Your task to perform on an android device: Open maps Image 0: 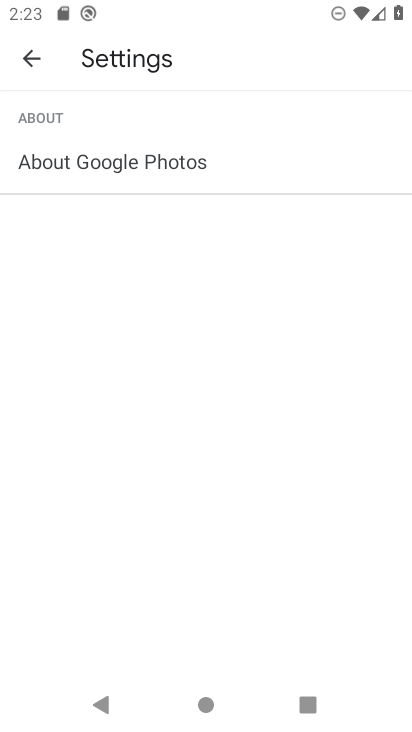
Step 0: press home button
Your task to perform on an android device: Open maps Image 1: 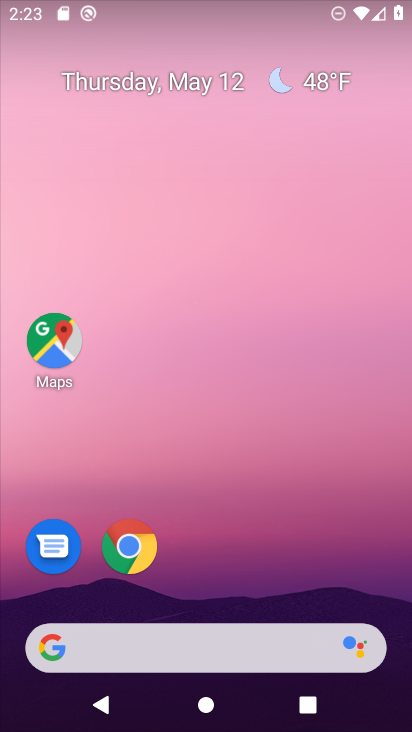
Step 1: drag from (263, 693) to (203, 215)
Your task to perform on an android device: Open maps Image 2: 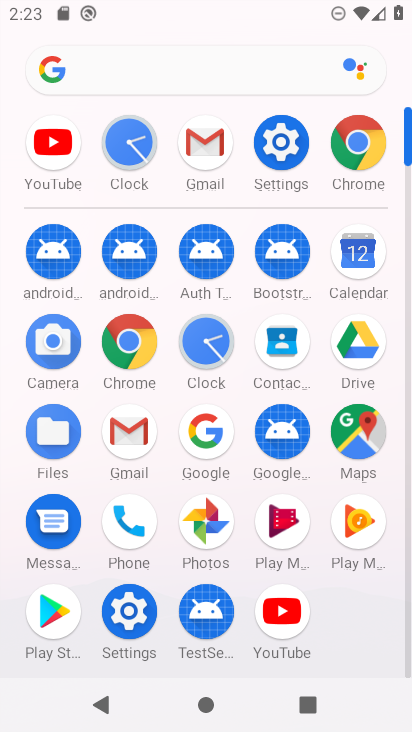
Step 2: click (356, 417)
Your task to perform on an android device: Open maps Image 3: 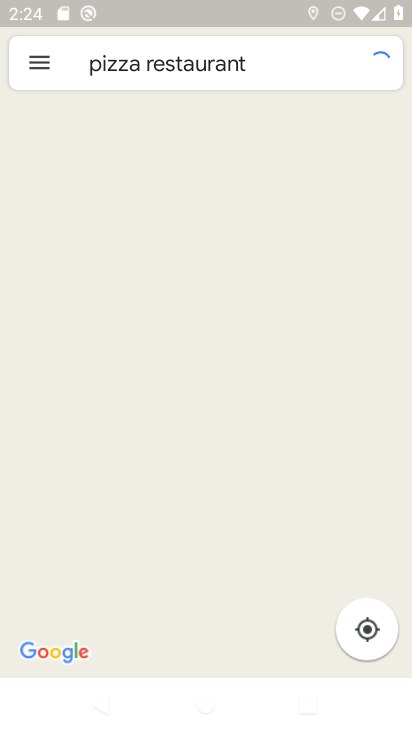
Step 3: click (256, 68)
Your task to perform on an android device: Open maps Image 4: 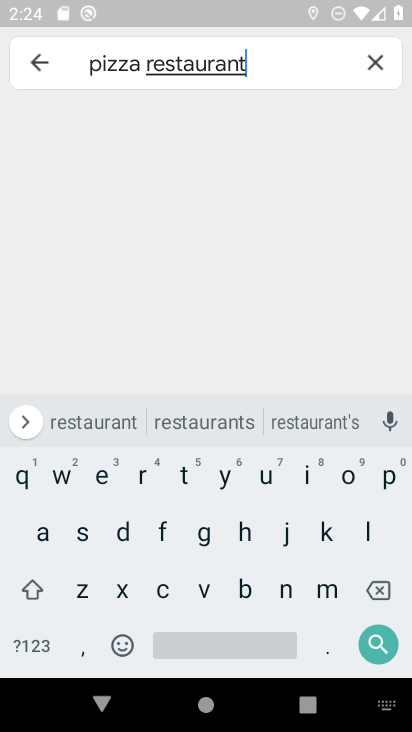
Step 4: click (376, 67)
Your task to perform on an android device: Open maps Image 5: 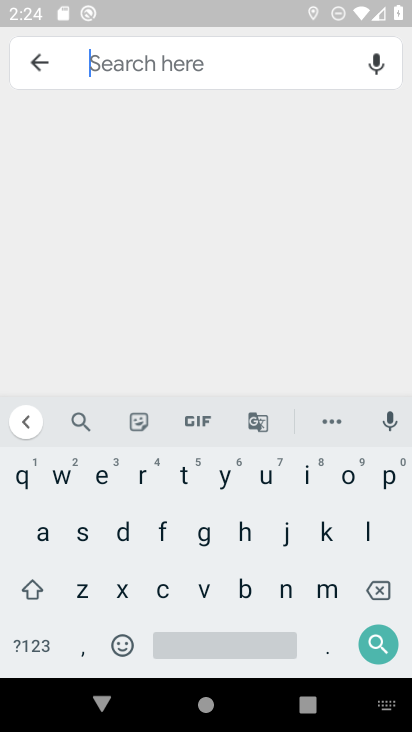
Step 5: click (39, 66)
Your task to perform on an android device: Open maps Image 6: 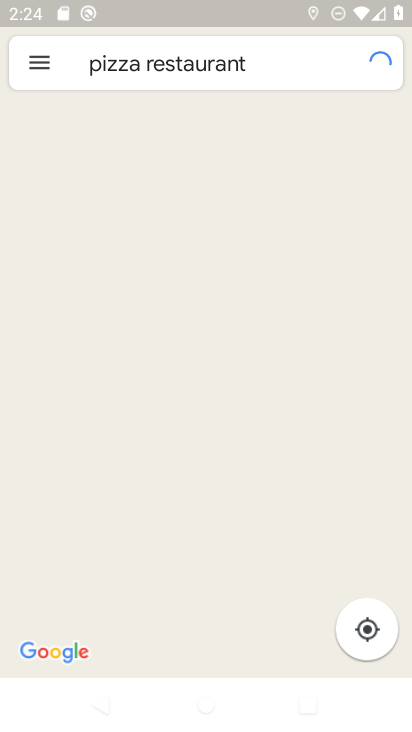
Step 6: click (29, 71)
Your task to perform on an android device: Open maps Image 7: 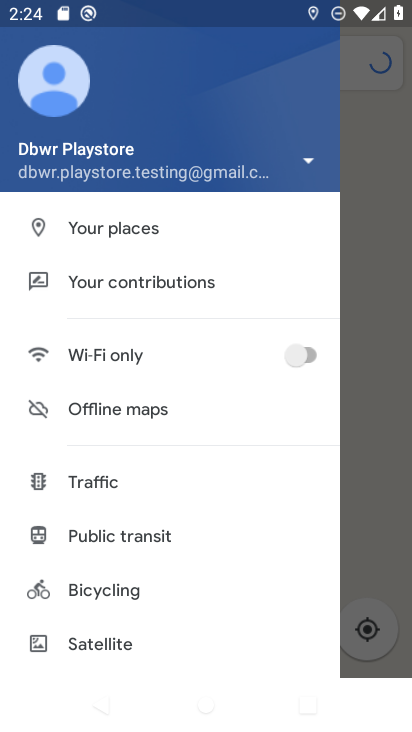
Step 7: click (366, 337)
Your task to perform on an android device: Open maps Image 8: 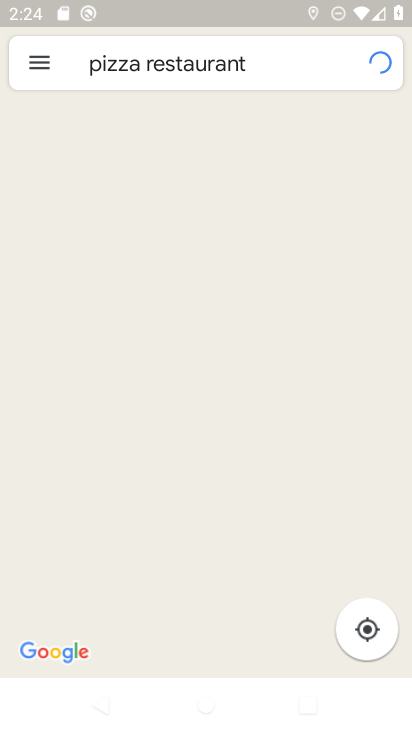
Step 8: click (276, 69)
Your task to perform on an android device: Open maps Image 9: 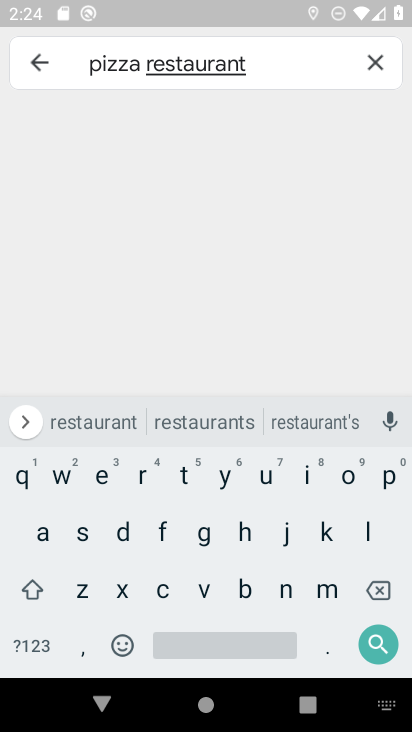
Step 9: click (375, 594)
Your task to perform on an android device: Open maps Image 10: 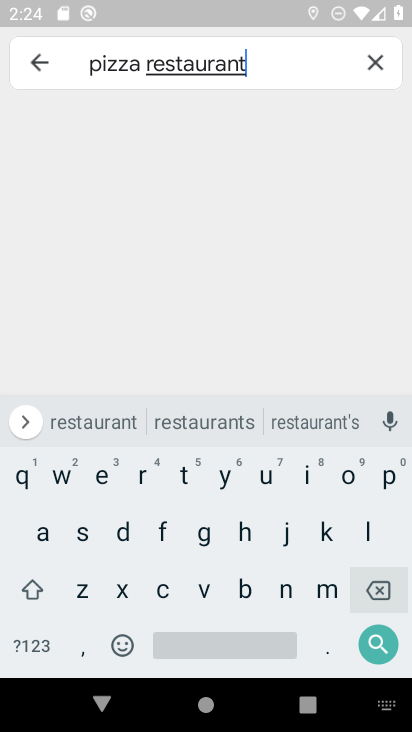
Step 10: click (377, 592)
Your task to perform on an android device: Open maps Image 11: 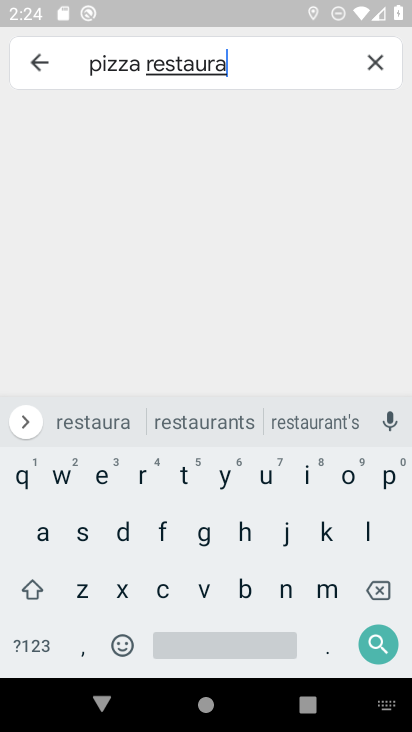
Step 11: click (378, 591)
Your task to perform on an android device: Open maps Image 12: 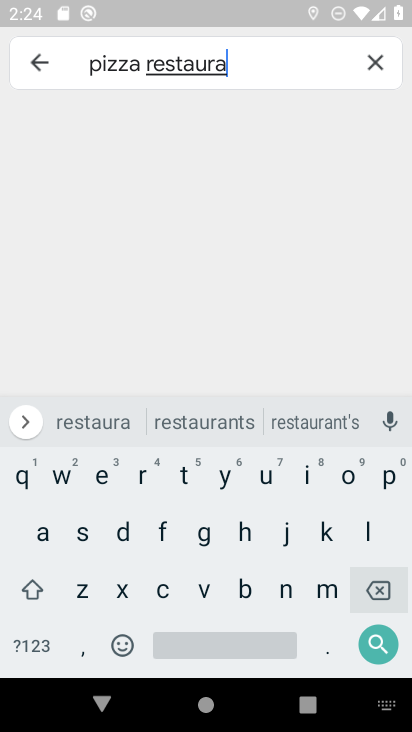
Step 12: click (378, 591)
Your task to perform on an android device: Open maps Image 13: 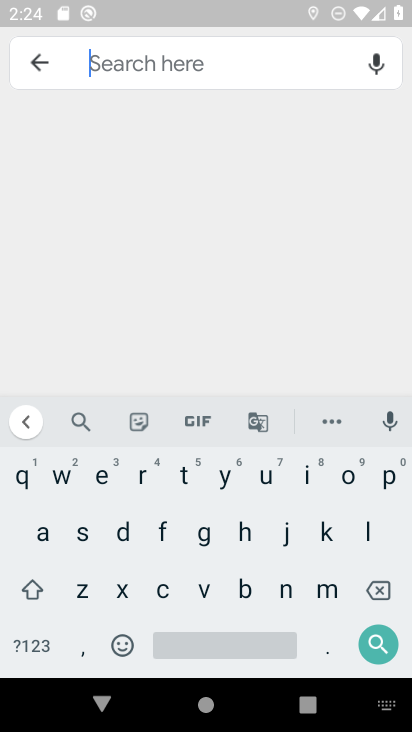
Step 13: click (43, 69)
Your task to perform on an android device: Open maps Image 14: 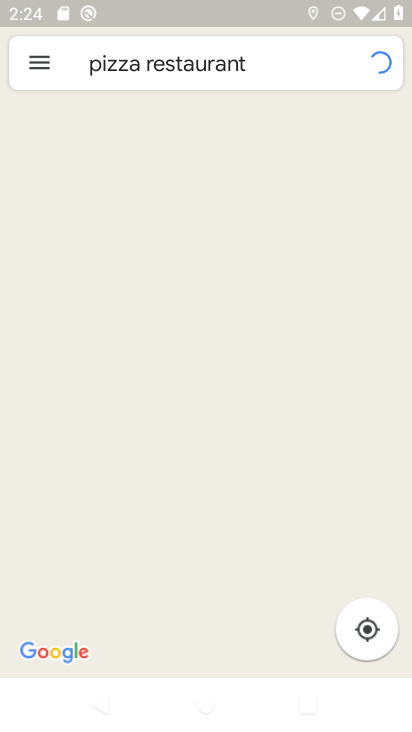
Step 14: click (43, 68)
Your task to perform on an android device: Open maps Image 15: 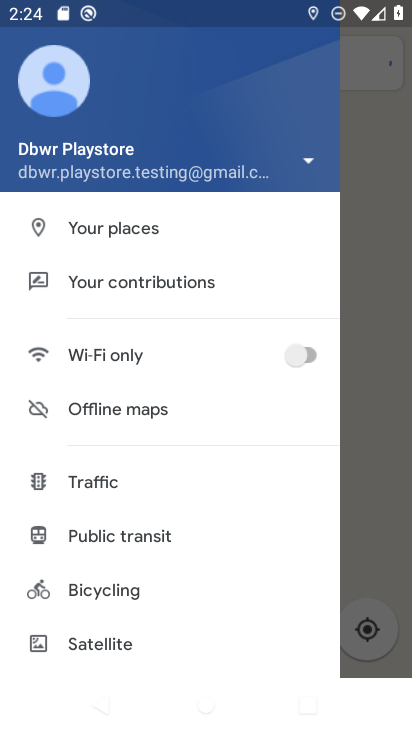
Step 15: click (360, 511)
Your task to perform on an android device: Open maps Image 16: 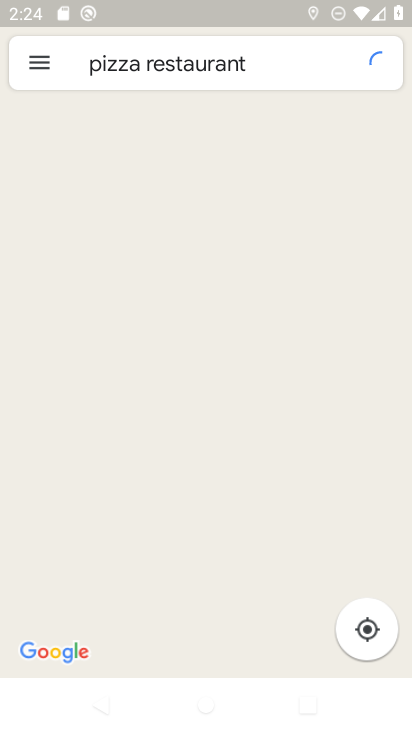
Step 16: click (370, 621)
Your task to perform on an android device: Open maps Image 17: 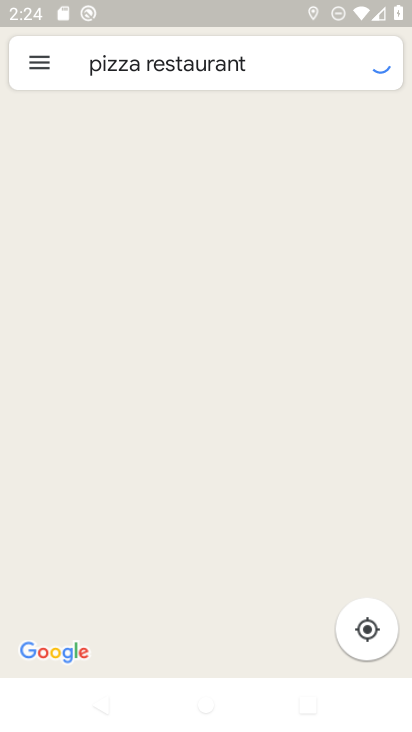
Step 17: click (371, 616)
Your task to perform on an android device: Open maps Image 18: 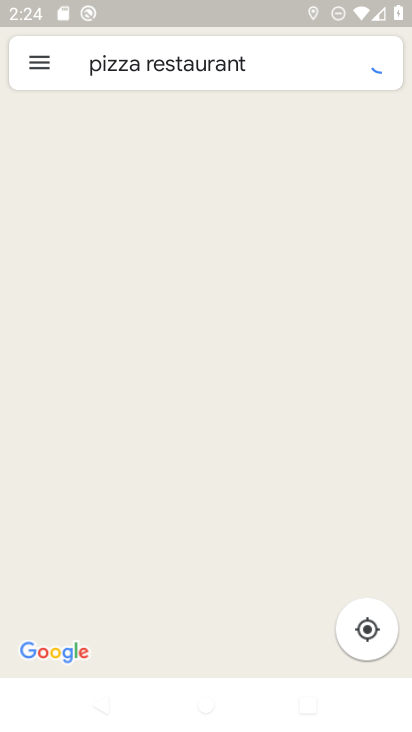
Step 18: task complete